Your task to perform on an android device: Open Android settings Image 0: 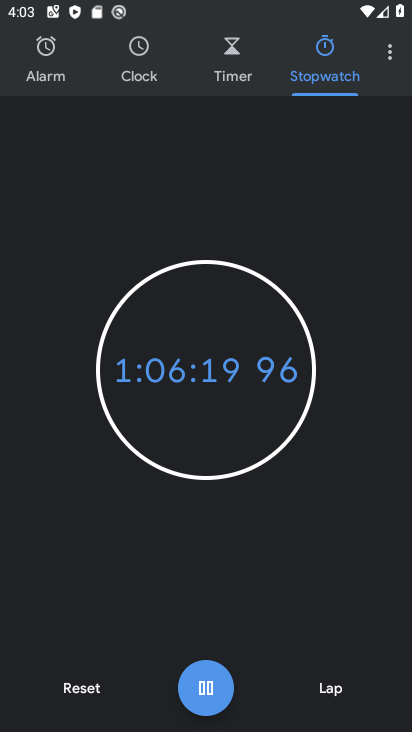
Step 0: press home button
Your task to perform on an android device: Open Android settings Image 1: 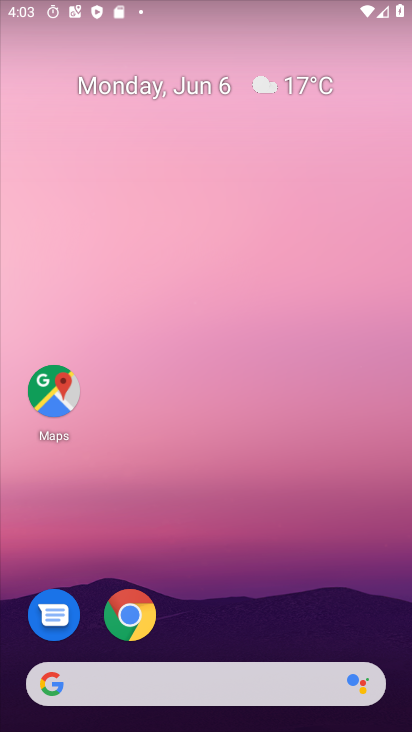
Step 1: drag from (257, 574) to (326, 23)
Your task to perform on an android device: Open Android settings Image 2: 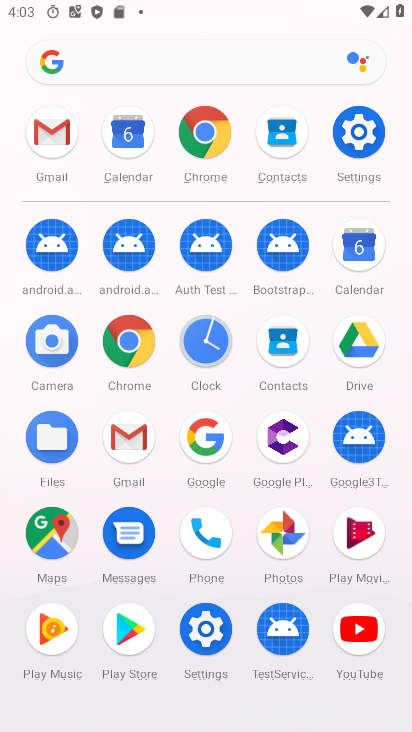
Step 2: click (365, 138)
Your task to perform on an android device: Open Android settings Image 3: 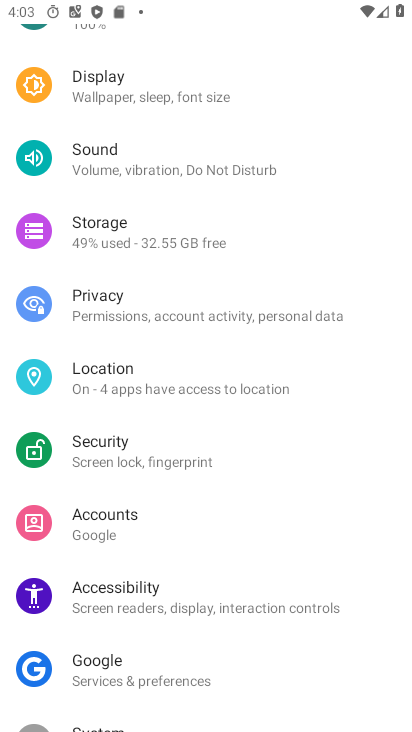
Step 3: drag from (171, 640) to (214, 183)
Your task to perform on an android device: Open Android settings Image 4: 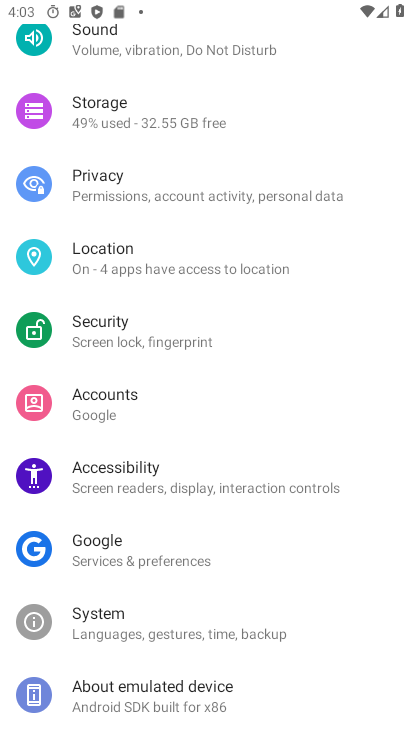
Step 4: click (131, 689)
Your task to perform on an android device: Open Android settings Image 5: 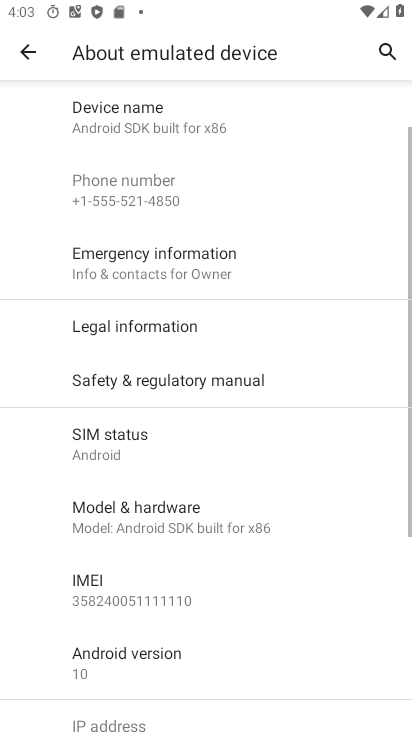
Step 5: task complete